Your task to perform on an android device: move an email to a new category in the gmail app Image 0: 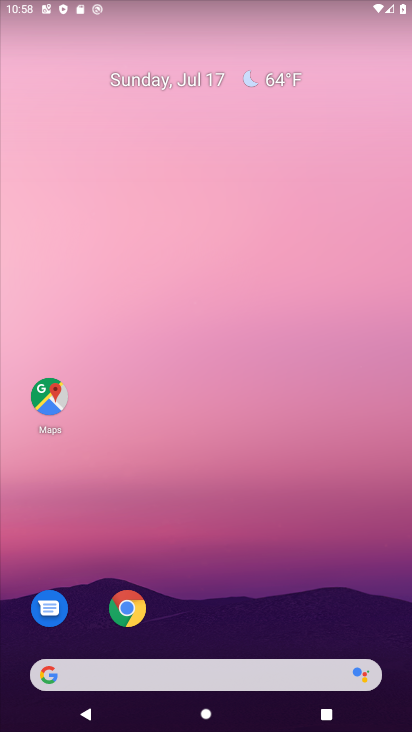
Step 0: drag from (376, 624) to (164, 29)
Your task to perform on an android device: move an email to a new category in the gmail app Image 1: 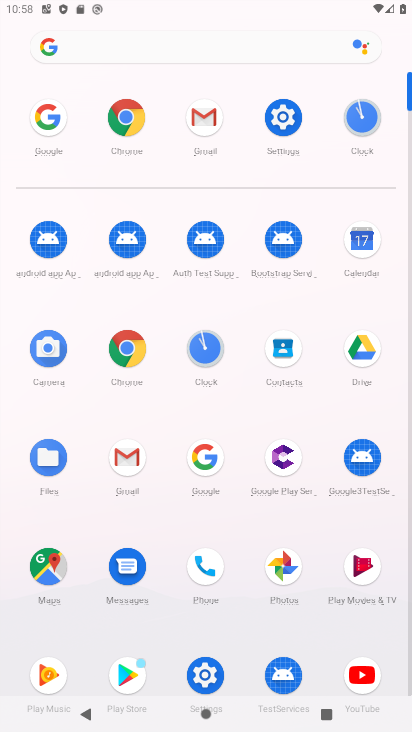
Step 1: click (116, 469)
Your task to perform on an android device: move an email to a new category in the gmail app Image 2: 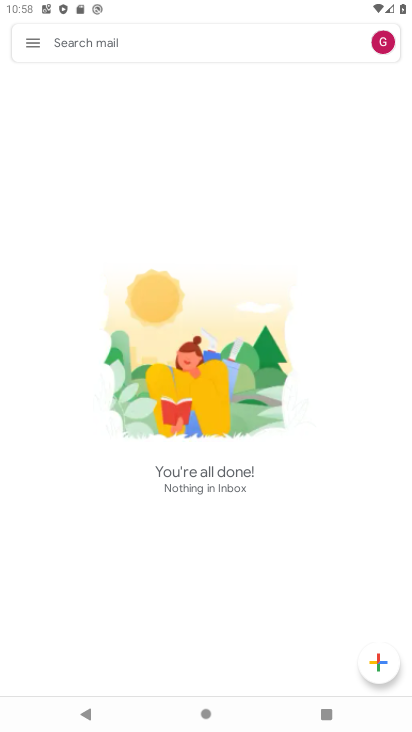
Step 2: task complete